Your task to perform on an android device: change notifications settings Image 0: 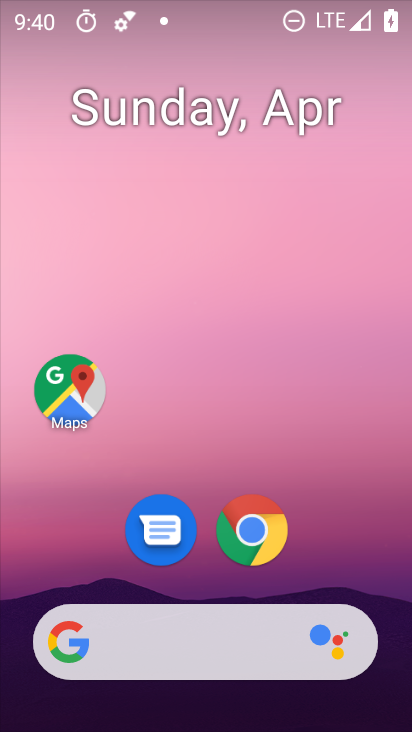
Step 0: drag from (369, 462) to (377, 0)
Your task to perform on an android device: change notifications settings Image 1: 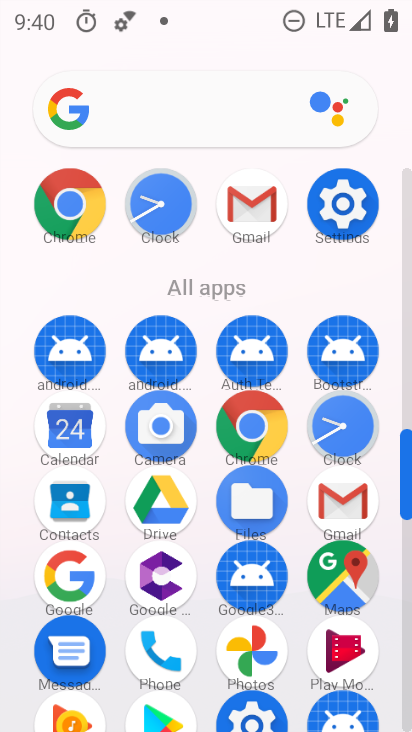
Step 1: click (345, 210)
Your task to perform on an android device: change notifications settings Image 2: 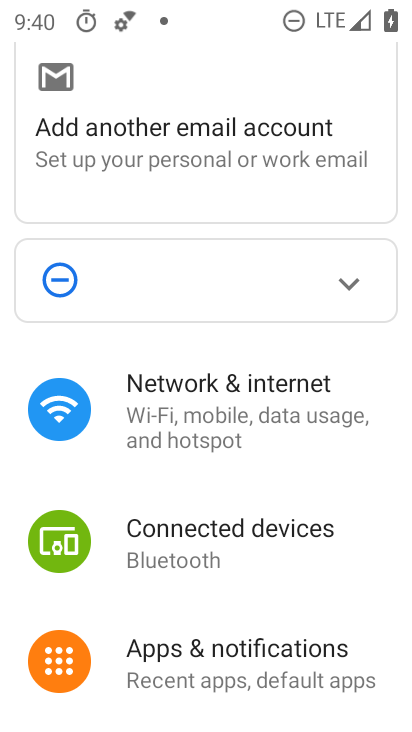
Step 2: drag from (349, 527) to (334, 300)
Your task to perform on an android device: change notifications settings Image 3: 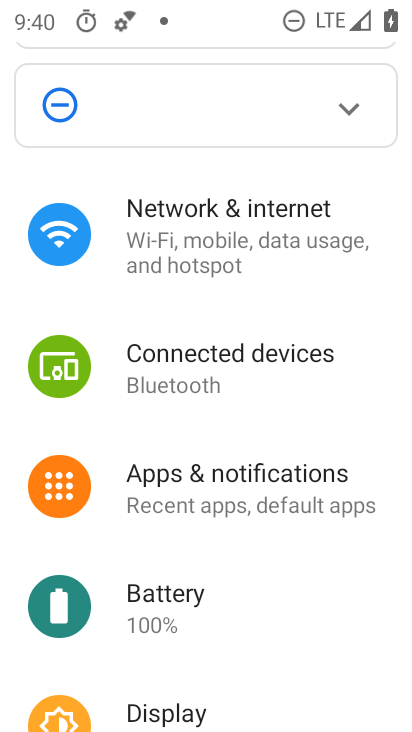
Step 3: click (223, 487)
Your task to perform on an android device: change notifications settings Image 4: 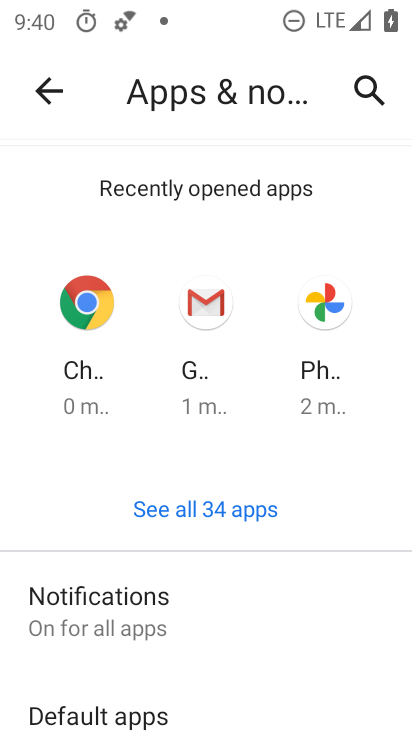
Step 4: drag from (274, 472) to (262, 250)
Your task to perform on an android device: change notifications settings Image 5: 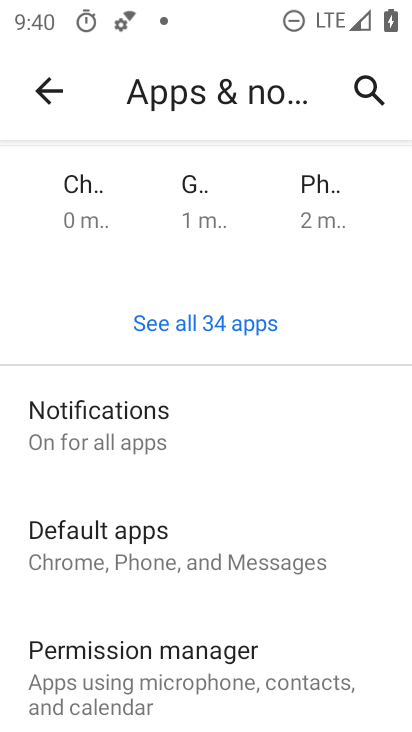
Step 5: click (95, 430)
Your task to perform on an android device: change notifications settings Image 6: 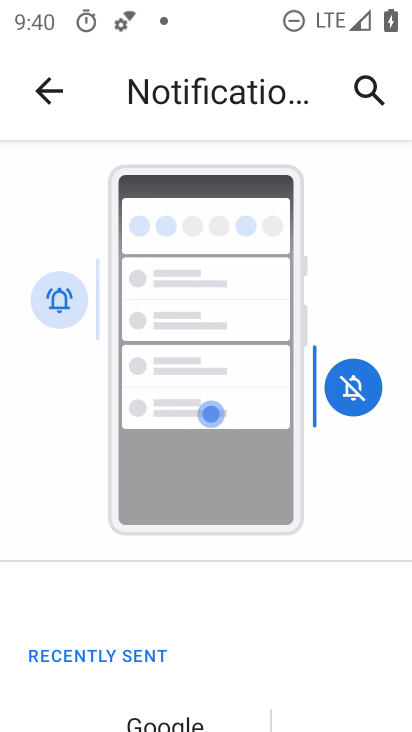
Step 6: drag from (266, 574) to (219, 68)
Your task to perform on an android device: change notifications settings Image 7: 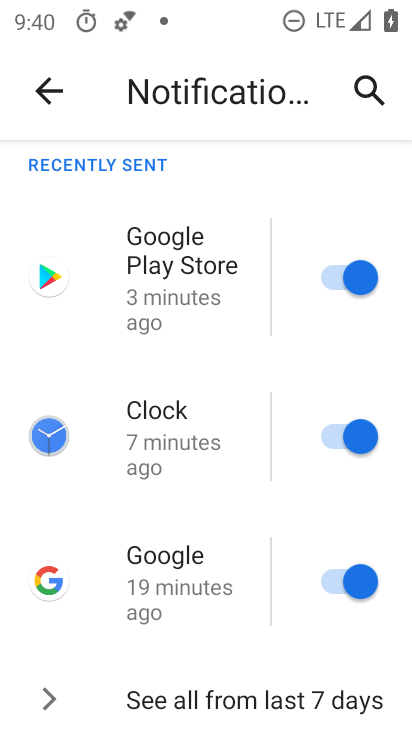
Step 7: drag from (246, 429) to (236, 102)
Your task to perform on an android device: change notifications settings Image 8: 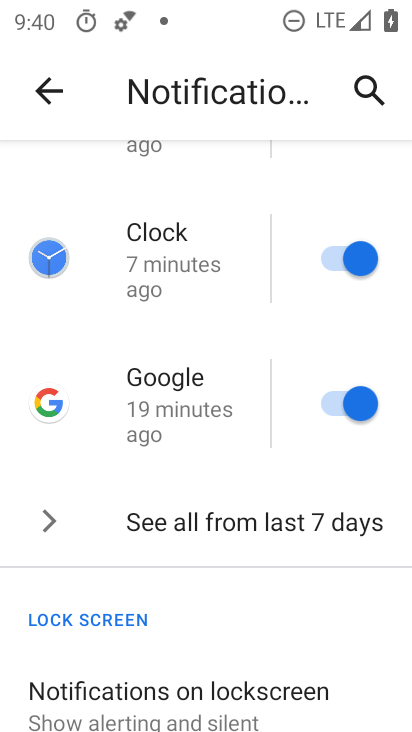
Step 8: click (235, 527)
Your task to perform on an android device: change notifications settings Image 9: 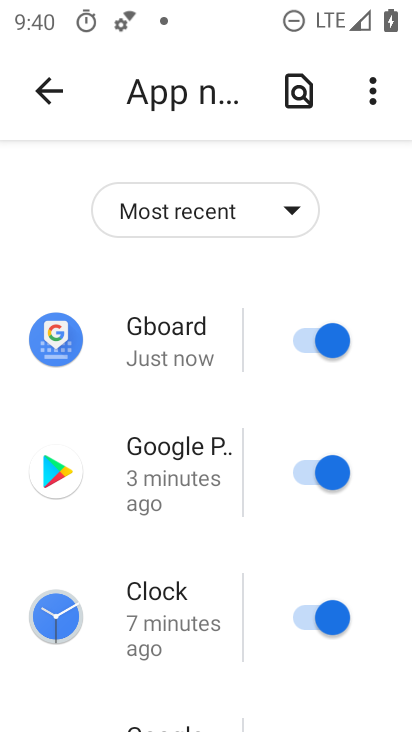
Step 9: click (284, 223)
Your task to perform on an android device: change notifications settings Image 10: 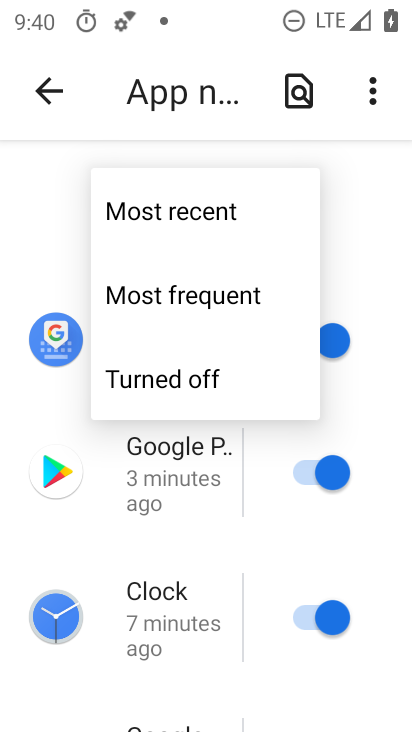
Step 10: click (150, 310)
Your task to perform on an android device: change notifications settings Image 11: 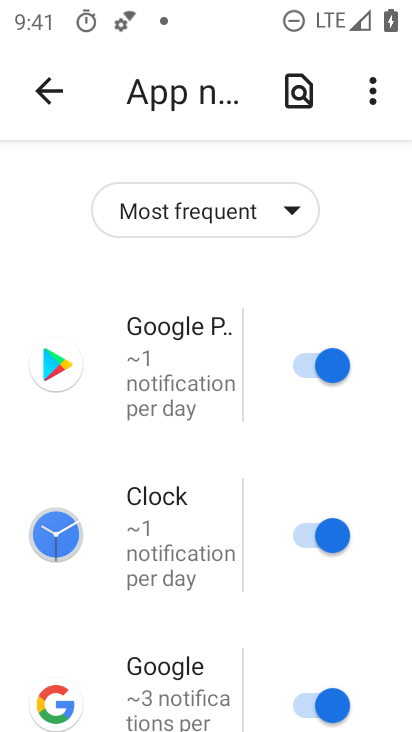
Step 11: task complete